Your task to perform on an android device: turn off location history Image 0: 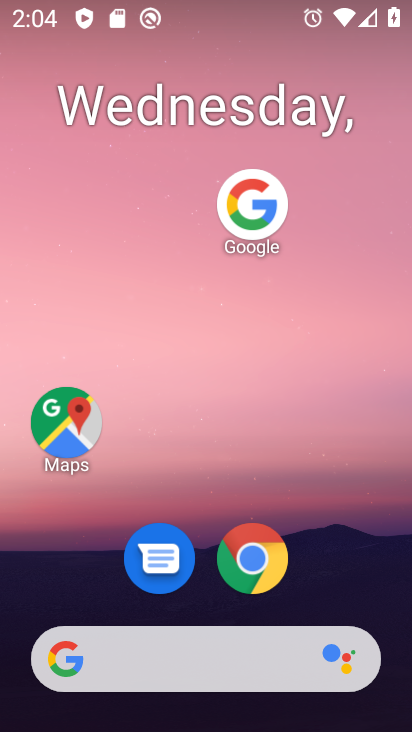
Step 0: click (47, 421)
Your task to perform on an android device: turn off location history Image 1: 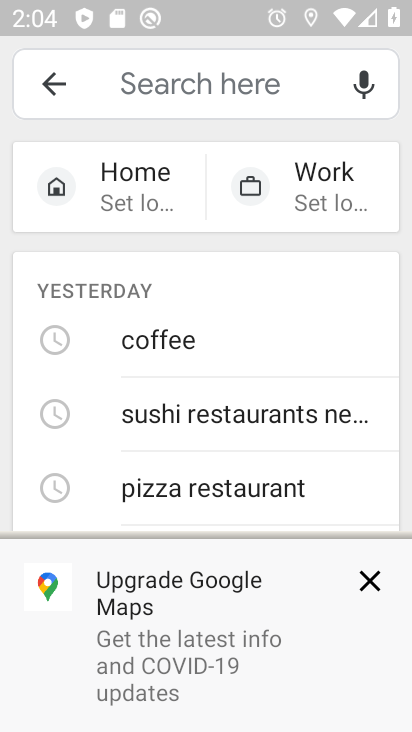
Step 1: click (59, 72)
Your task to perform on an android device: turn off location history Image 2: 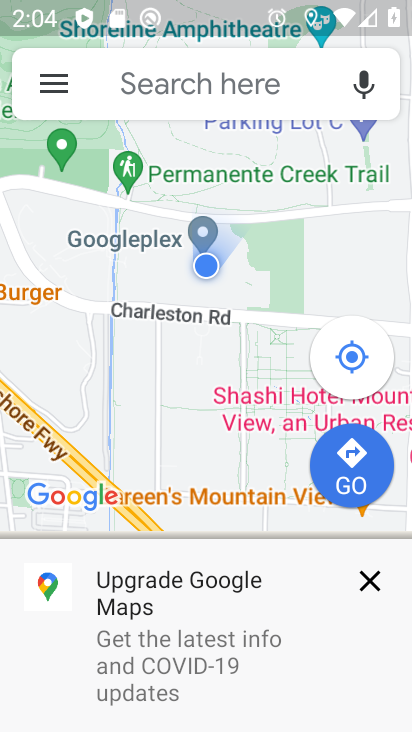
Step 2: click (59, 72)
Your task to perform on an android device: turn off location history Image 3: 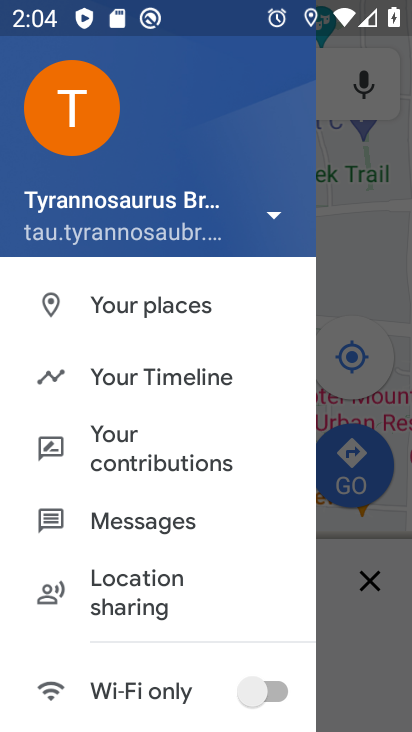
Step 3: click (196, 374)
Your task to perform on an android device: turn off location history Image 4: 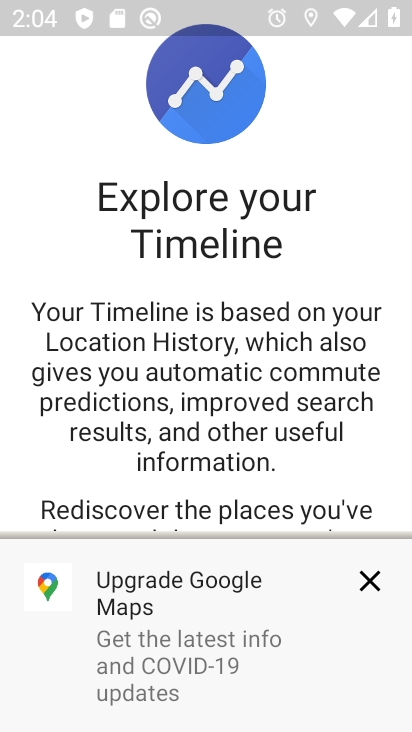
Step 4: click (369, 588)
Your task to perform on an android device: turn off location history Image 5: 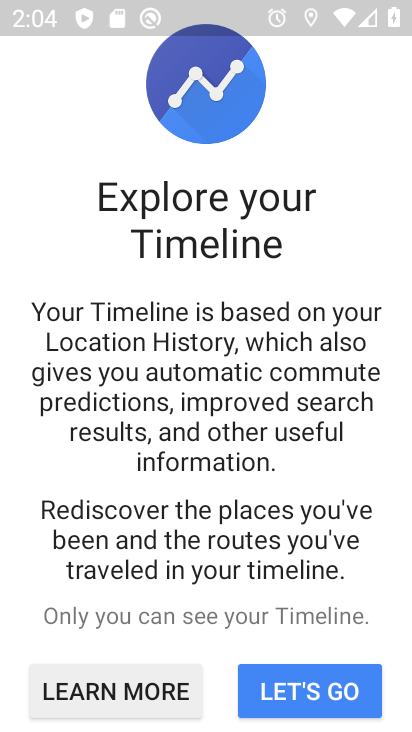
Step 5: click (346, 676)
Your task to perform on an android device: turn off location history Image 6: 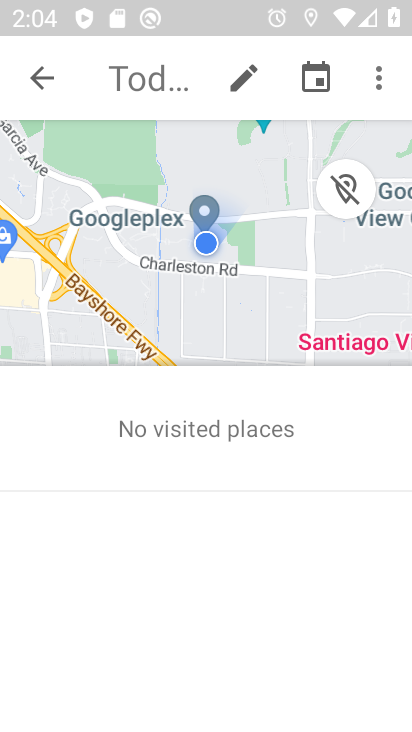
Step 6: click (373, 89)
Your task to perform on an android device: turn off location history Image 7: 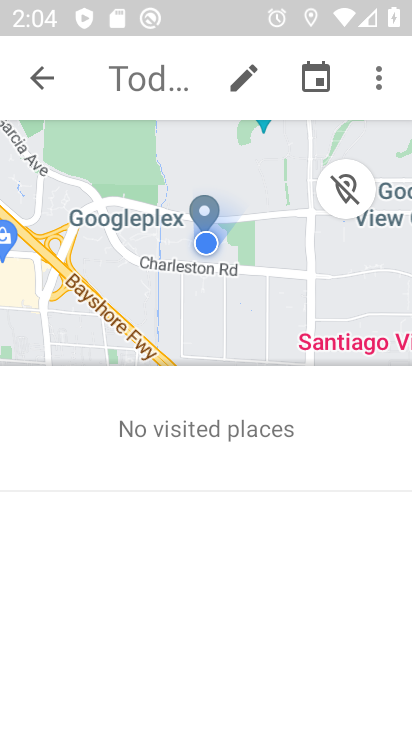
Step 7: click (375, 89)
Your task to perform on an android device: turn off location history Image 8: 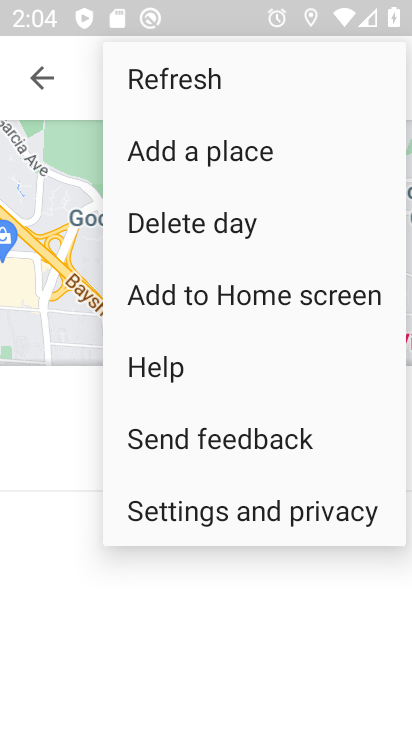
Step 8: click (277, 521)
Your task to perform on an android device: turn off location history Image 9: 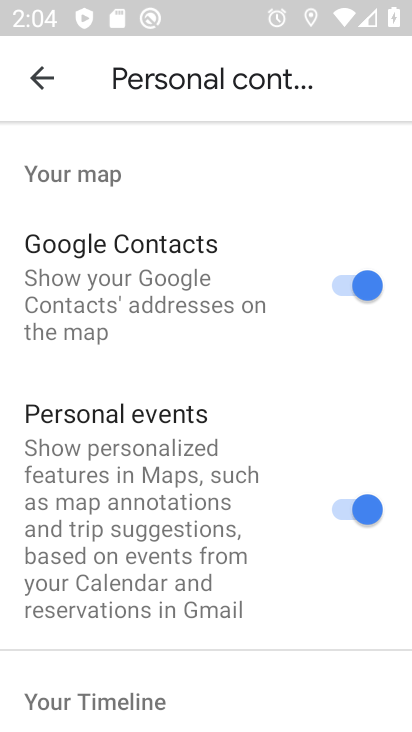
Step 9: drag from (289, 608) to (211, 185)
Your task to perform on an android device: turn off location history Image 10: 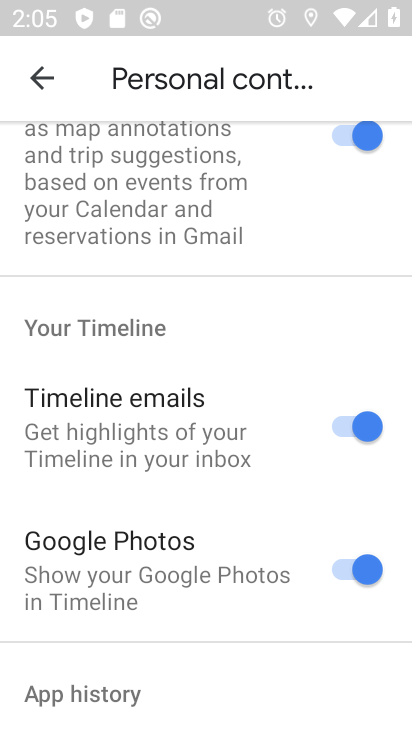
Step 10: drag from (269, 588) to (177, 201)
Your task to perform on an android device: turn off location history Image 11: 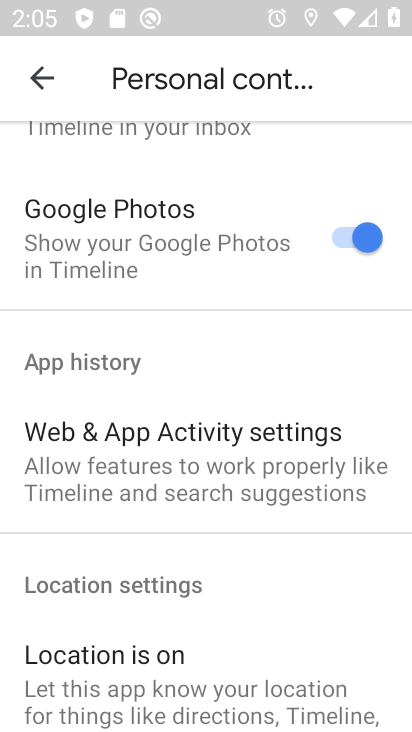
Step 11: drag from (225, 611) to (136, 230)
Your task to perform on an android device: turn off location history Image 12: 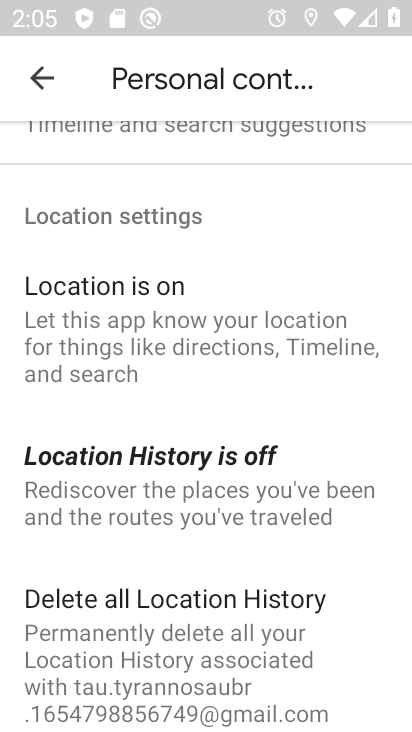
Step 12: click (243, 485)
Your task to perform on an android device: turn off location history Image 13: 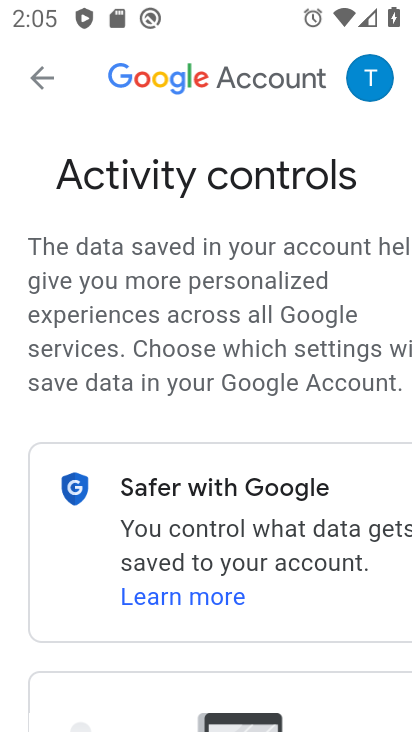
Step 13: task complete